Your task to perform on an android device: Look up the best rated gaming chairs on Target. Image 0: 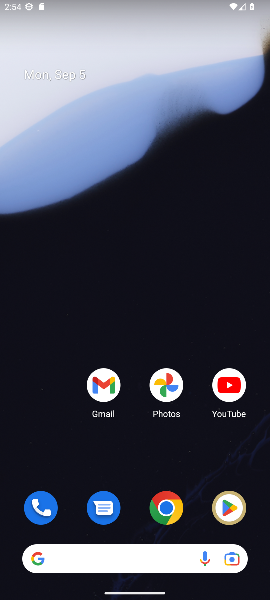
Step 0: click (166, 514)
Your task to perform on an android device: Look up the best rated gaming chairs on Target. Image 1: 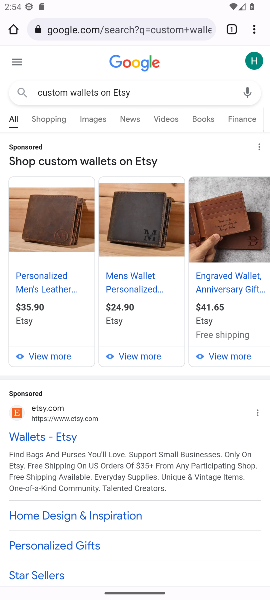
Step 1: click (108, 25)
Your task to perform on an android device: Look up the best rated gaming chairs on Target. Image 2: 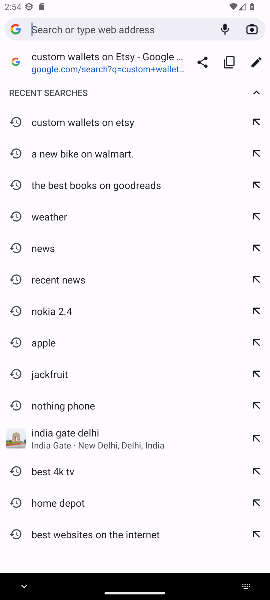
Step 2: type "the best rated gaming chairs on Target."
Your task to perform on an android device: Look up the best rated gaming chairs on Target. Image 3: 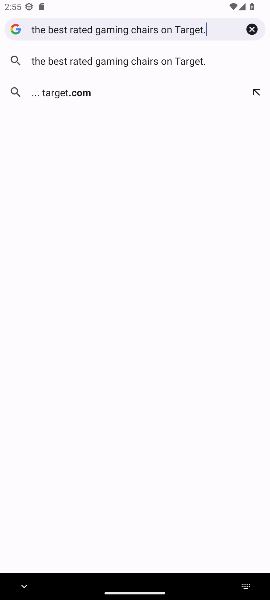
Step 3: click (114, 64)
Your task to perform on an android device: Look up the best rated gaming chairs on Target. Image 4: 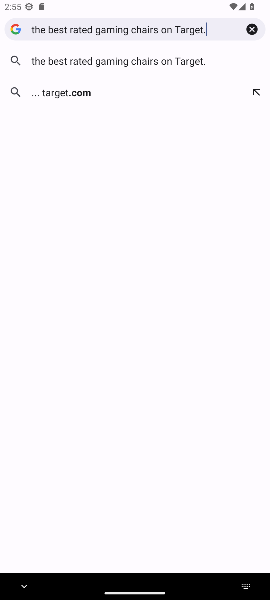
Step 4: click (114, 64)
Your task to perform on an android device: Look up the best rated gaming chairs on Target. Image 5: 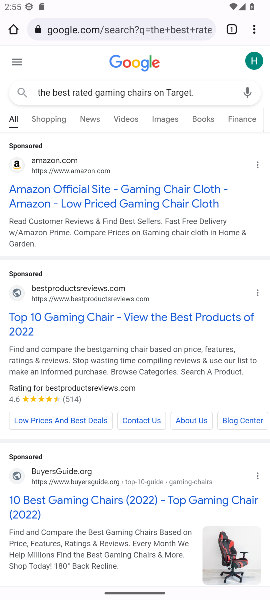
Step 5: task complete